Your task to perform on an android device: Open CNN.com Image 0: 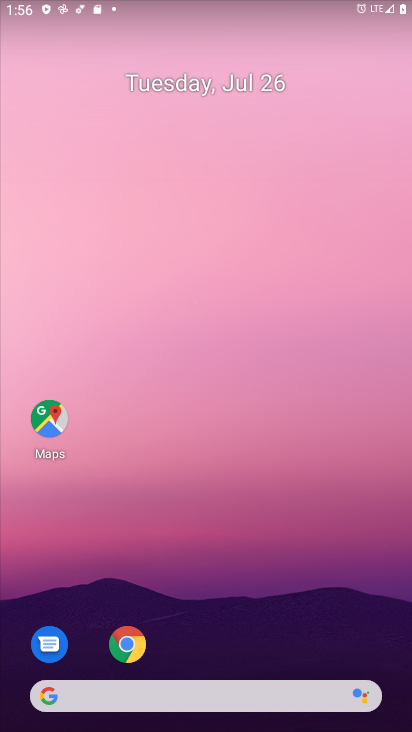
Step 0: click (205, 690)
Your task to perform on an android device: Open CNN.com Image 1: 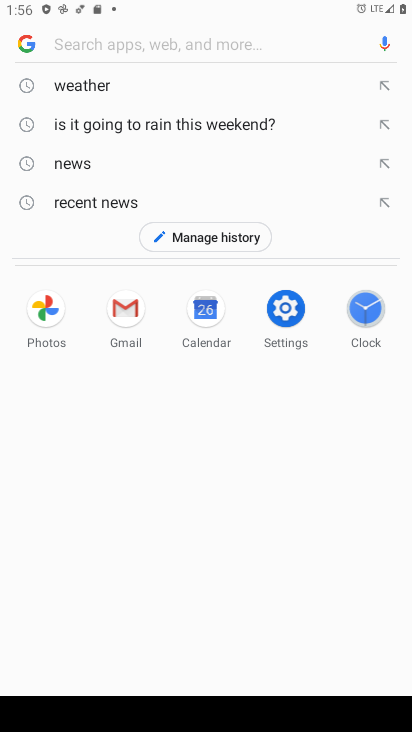
Step 1: type "cnn.com"
Your task to perform on an android device: Open CNN.com Image 2: 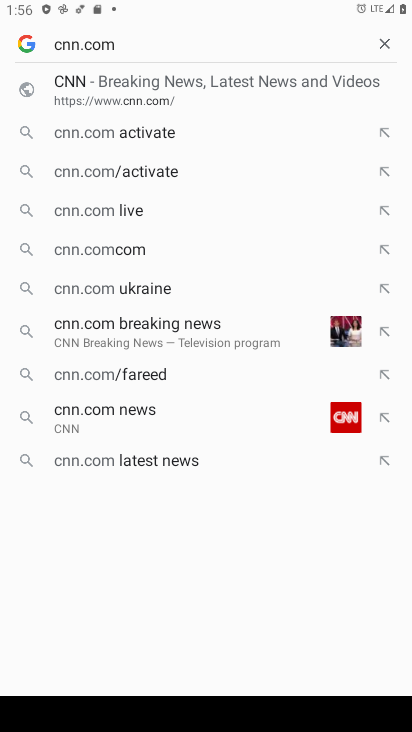
Step 2: click (266, 78)
Your task to perform on an android device: Open CNN.com Image 3: 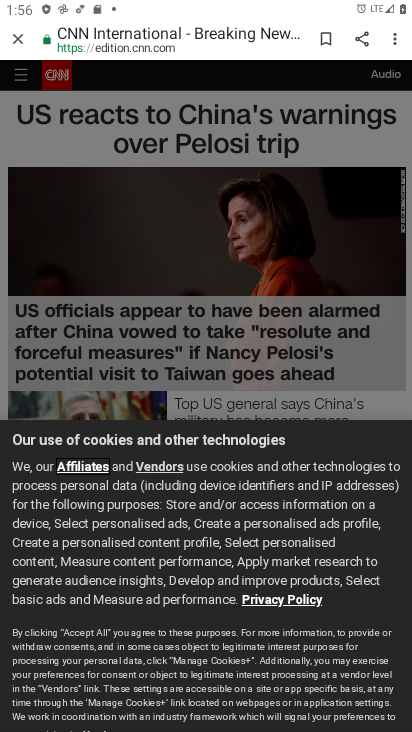
Step 3: task complete